Your task to perform on an android device: What's the weather going to be this weekend? Image 0: 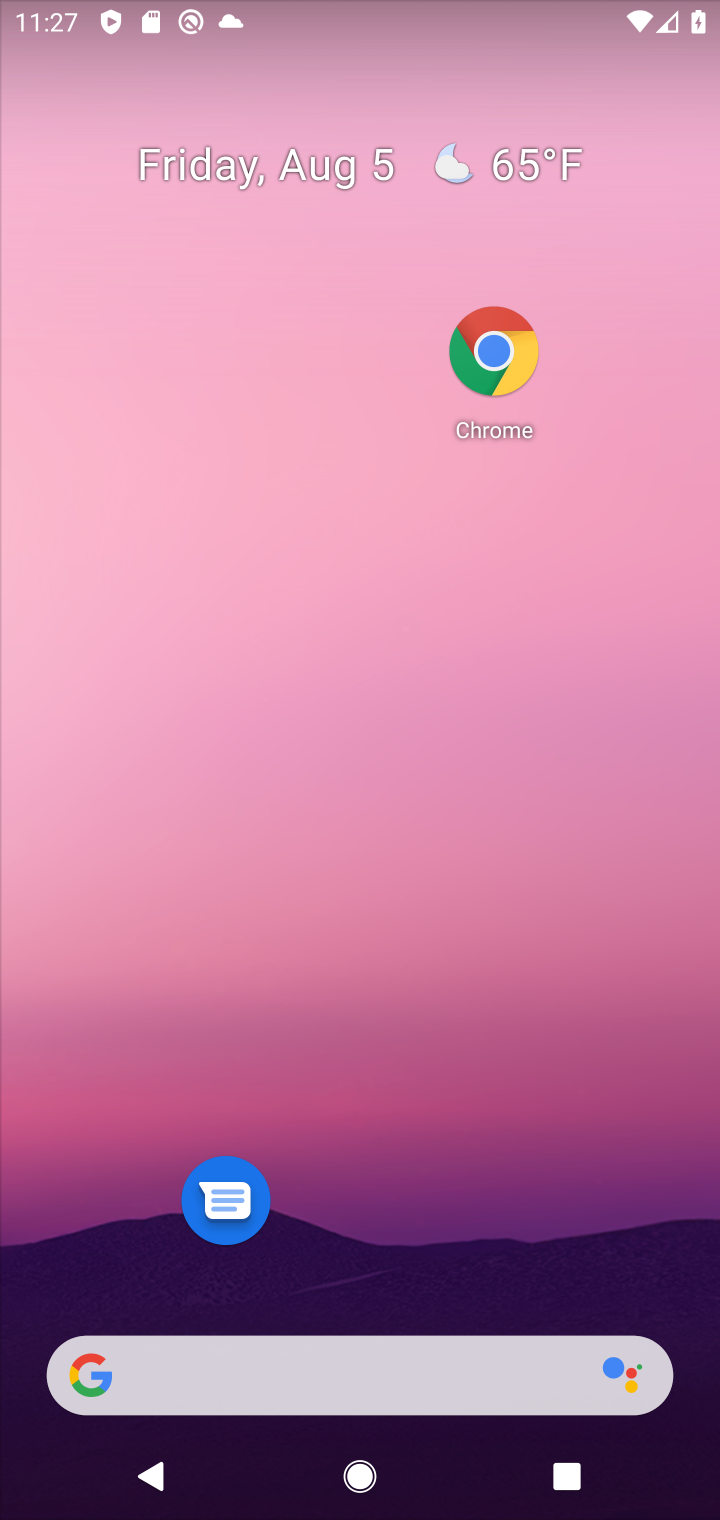
Step 0: drag from (490, 1038) to (525, 175)
Your task to perform on an android device: What's the weather going to be this weekend? Image 1: 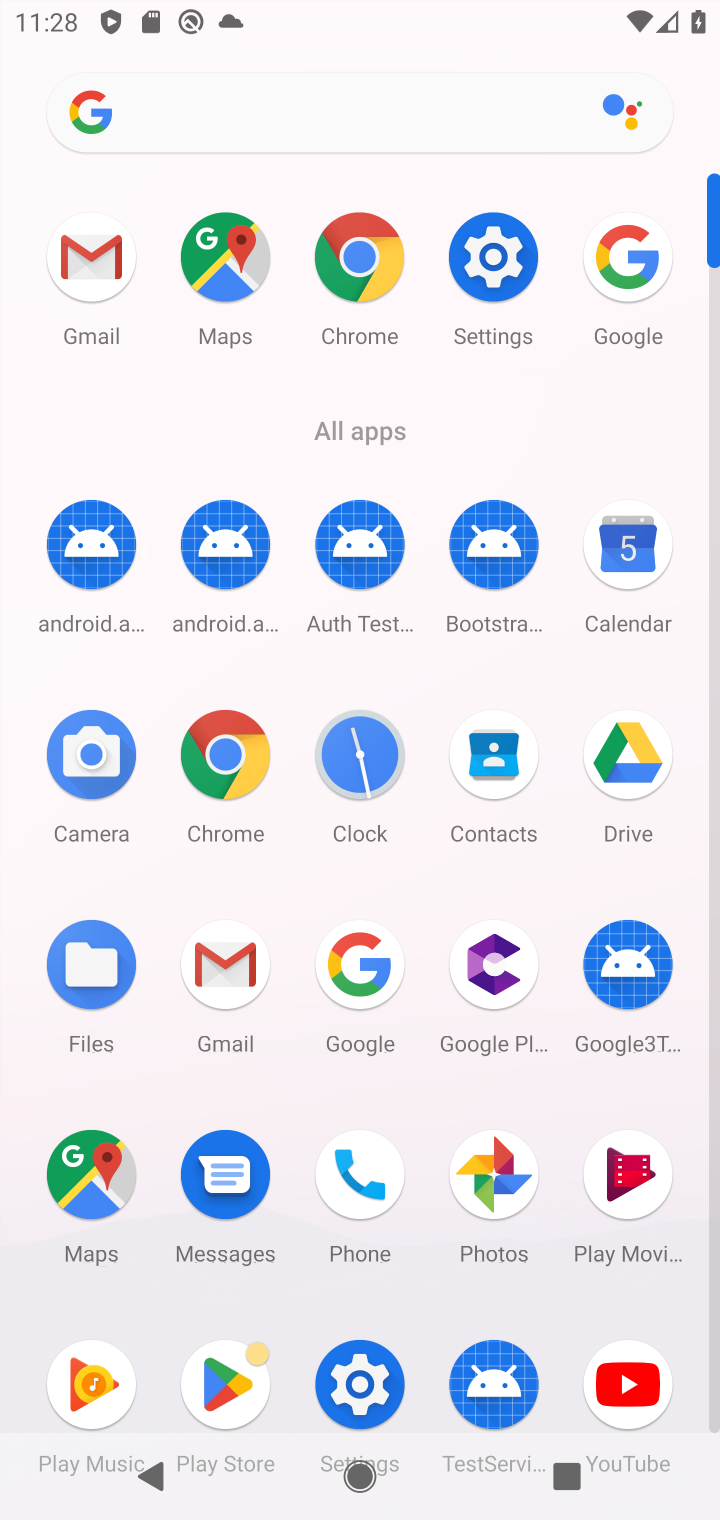
Step 1: click (356, 991)
Your task to perform on an android device: What's the weather going to be this weekend? Image 2: 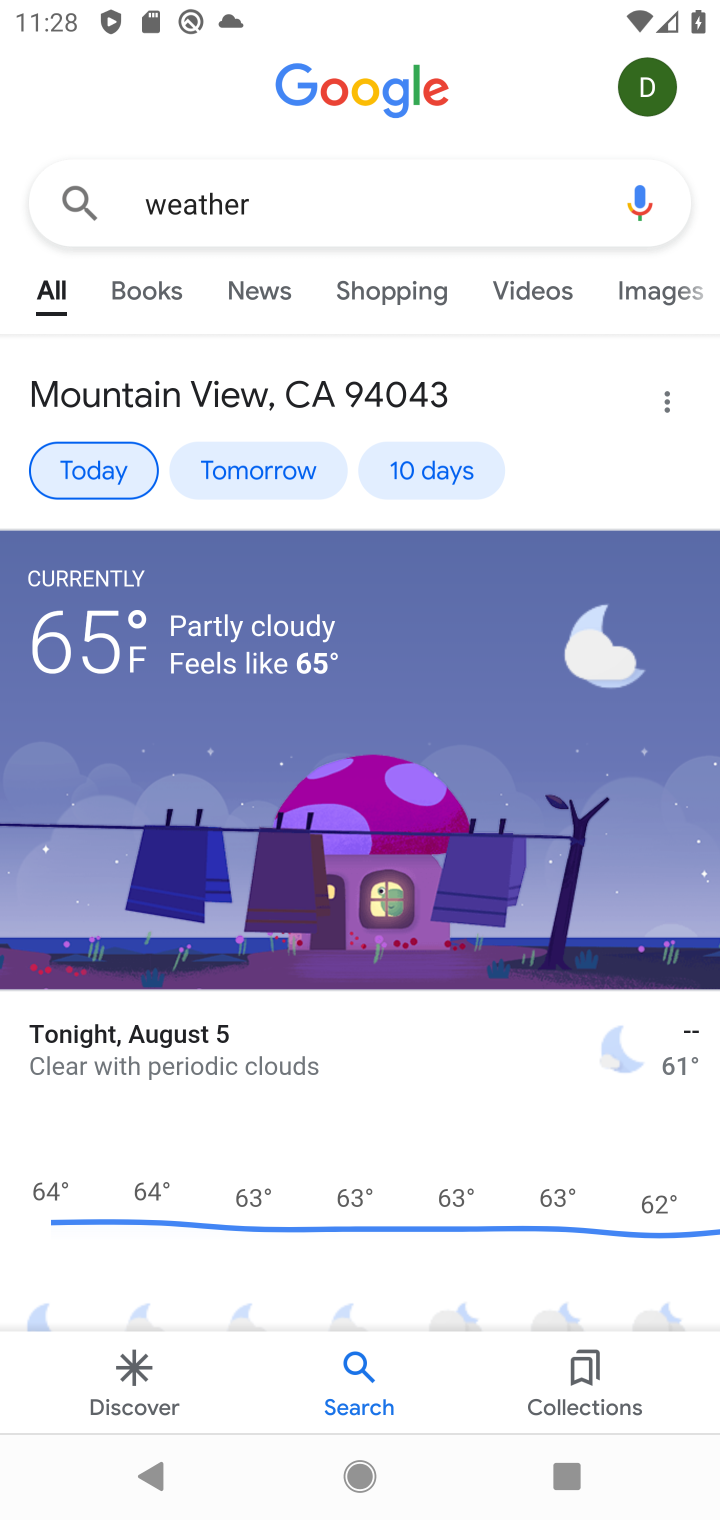
Step 2: click (470, 530)
Your task to perform on an android device: What's the weather going to be this weekend? Image 3: 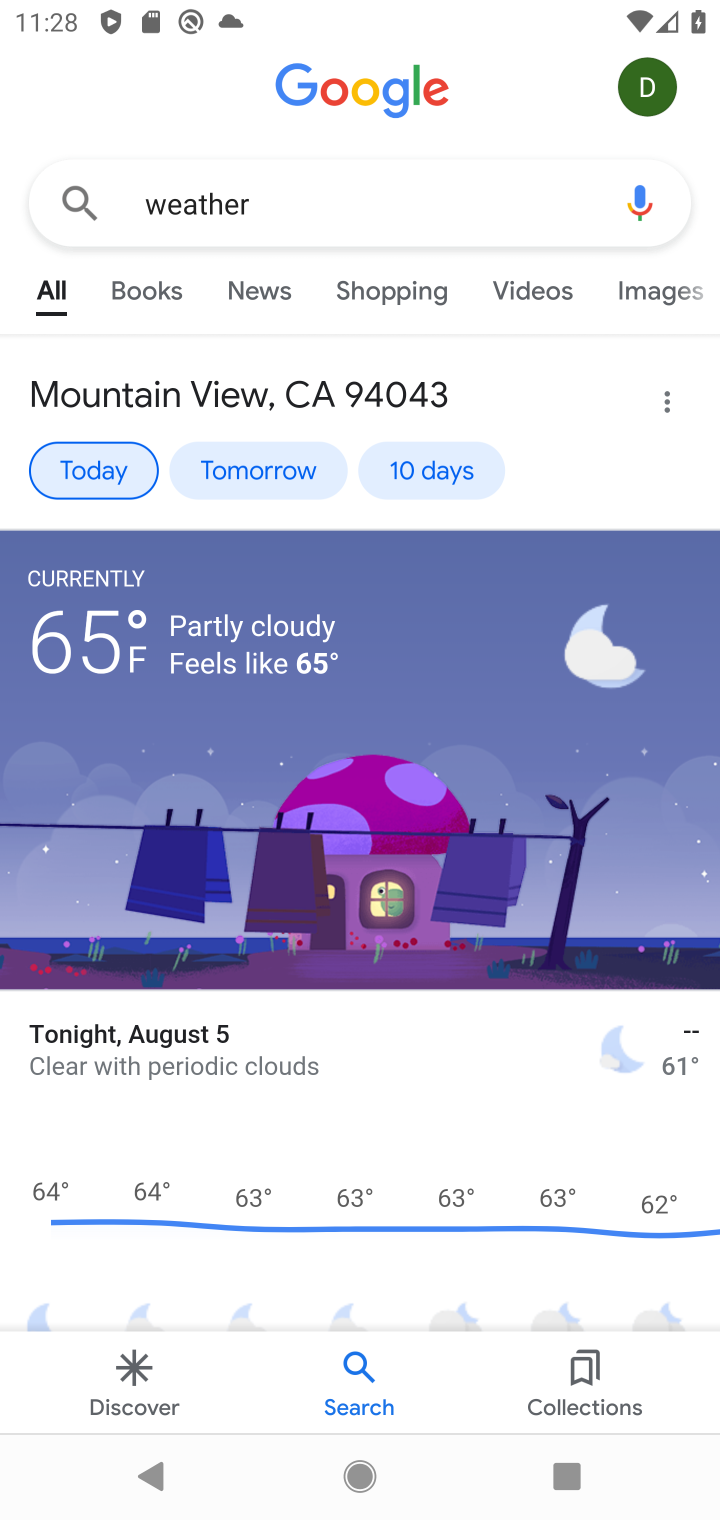
Step 3: click (459, 484)
Your task to perform on an android device: What's the weather going to be this weekend? Image 4: 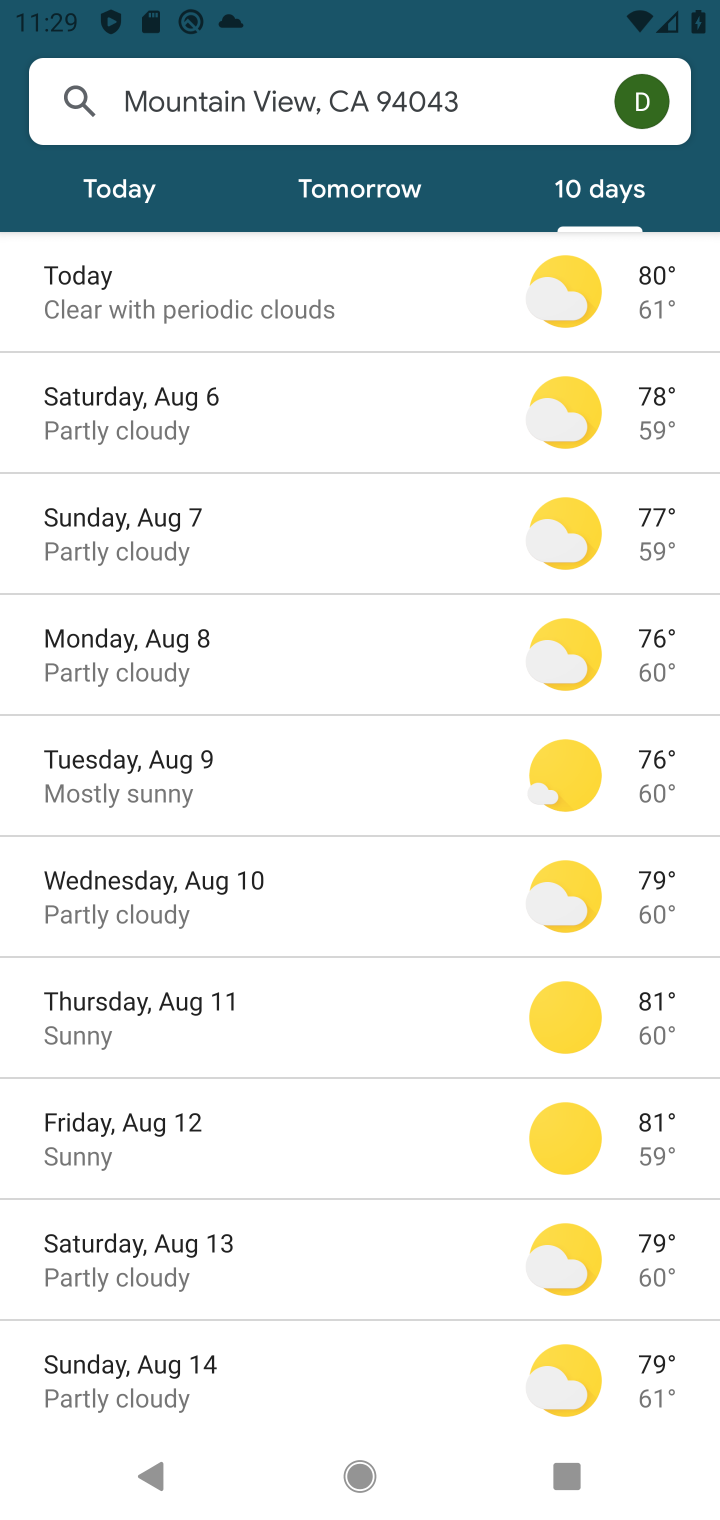
Step 4: task complete